Your task to perform on an android device: Add apple airpods to the cart on walmart, then select checkout. Image 0: 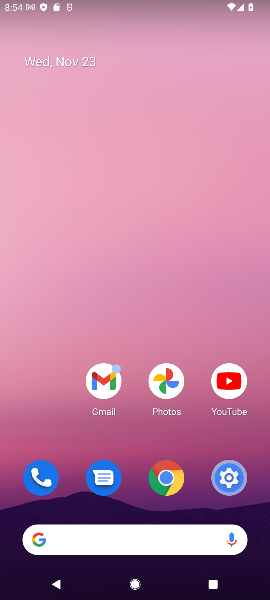
Step 0: click (147, 546)
Your task to perform on an android device: Add apple airpods to the cart on walmart, then select checkout. Image 1: 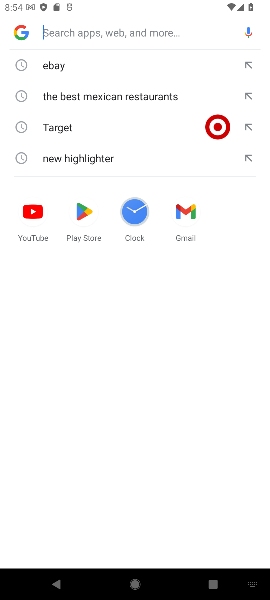
Step 1: type "walmart.com"
Your task to perform on an android device: Add apple airpods to the cart on walmart, then select checkout. Image 2: 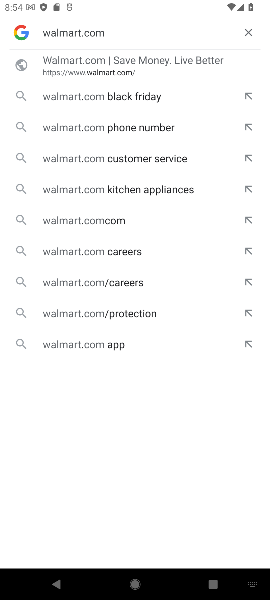
Step 2: click (100, 67)
Your task to perform on an android device: Add apple airpods to the cart on walmart, then select checkout. Image 3: 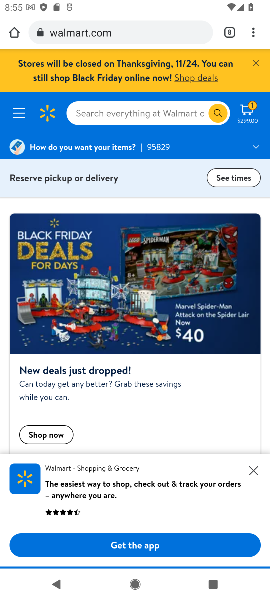
Step 3: click (123, 101)
Your task to perform on an android device: Add apple airpods to the cart on walmart, then select checkout. Image 4: 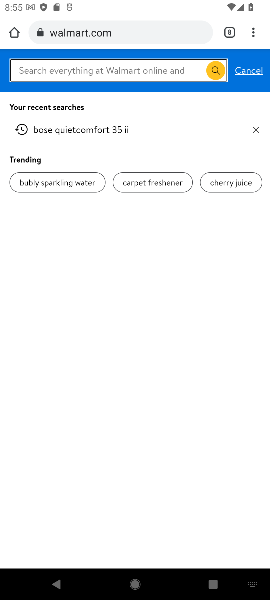
Step 4: type "apple airpod"
Your task to perform on an android device: Add apple airpods to the cart on walmart, then select checkout. Image 5: 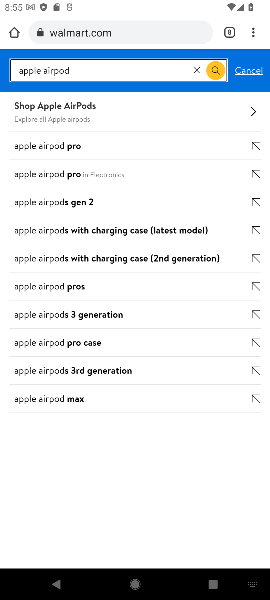
Step 5: click (83, 100)
Your task to perform on an android device: Add apple airpods to the cart on walmart, then select checkout. Image 6: 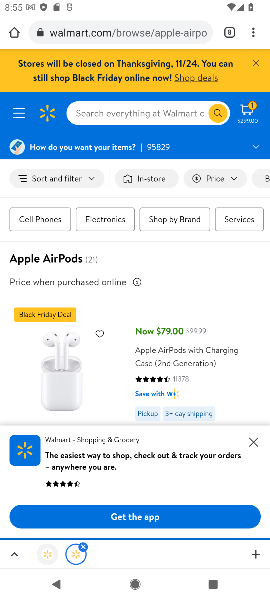
Step 6: click (250, 446)
Your task to perform on an android device: Add apple airpods to the cart on walmart, then select checkout. Image 7: 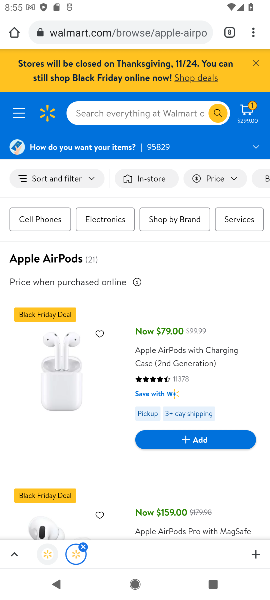
Step 7: click (230, 446)
Your task to perform on an android device: Add apple airpods to the cart on walmart, then select checkout. Image 8: 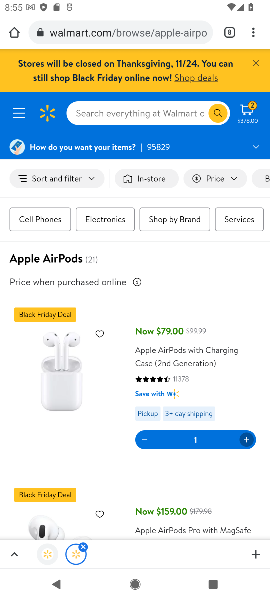
Step 8: task complete